Your task to perform on an android device: turn off picture-in-picture Image 0: 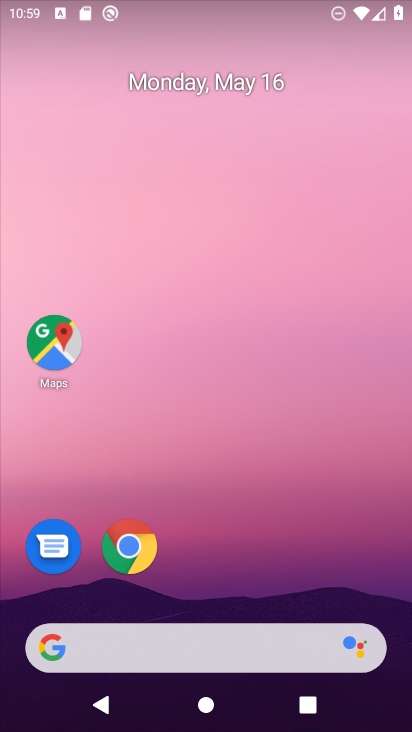
Step 0: click (124, 551)
Your task to perform on an android device: turn off picture-in-picture Image 1: 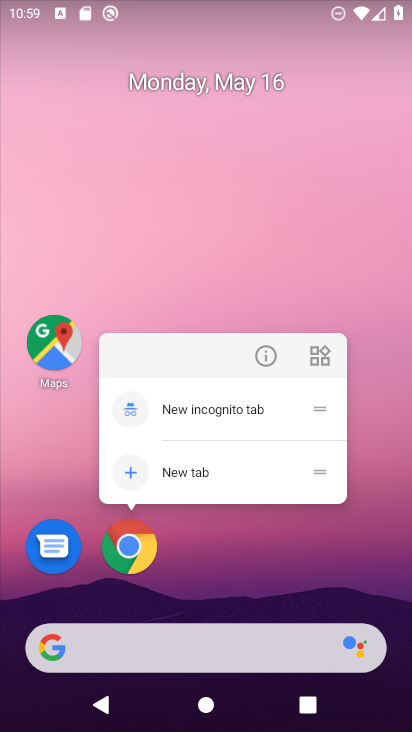
Step 1: click (265, 351)
Your task to perform on an android device: turn off picture-in-picture Image 2: 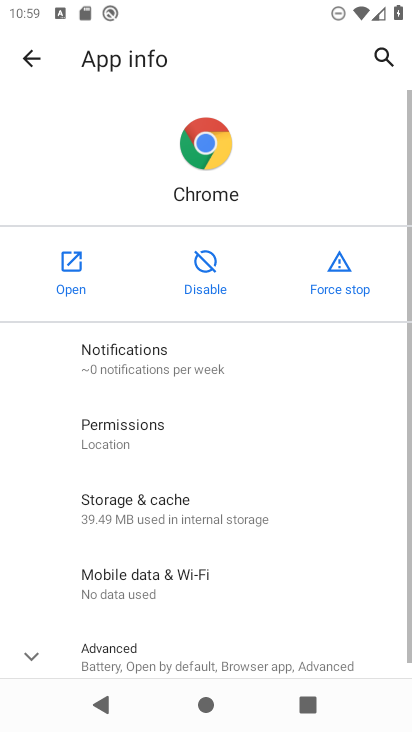
Step 2: drag from (177, 570) to (221, 210)
Your task to perform on an android device: turn off picture-in-picture Image 3: 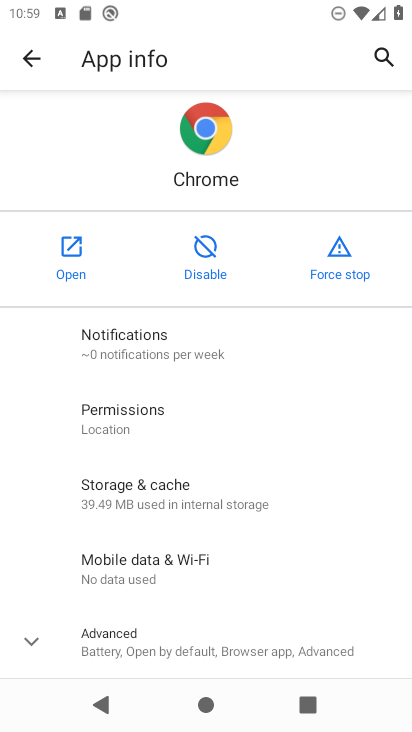
Step 3: click (165, 658)
Your task to perform on an android device: turn off picture-in-picture Image 4: 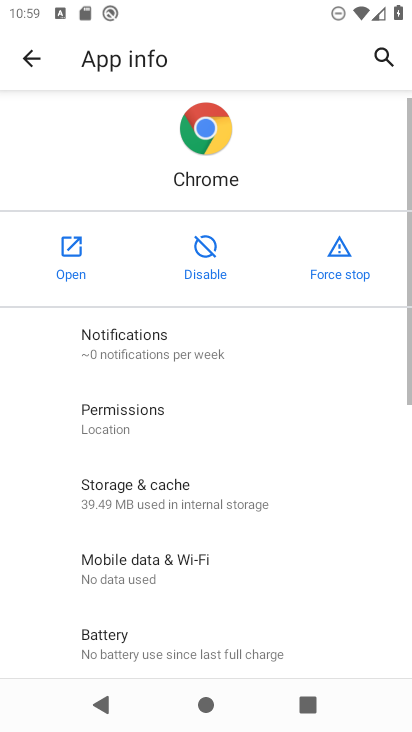
Step 4: drag from (165, 658) to (218, 351)
Your task to perform on an android device: turn off picture-in-picture Image 5: 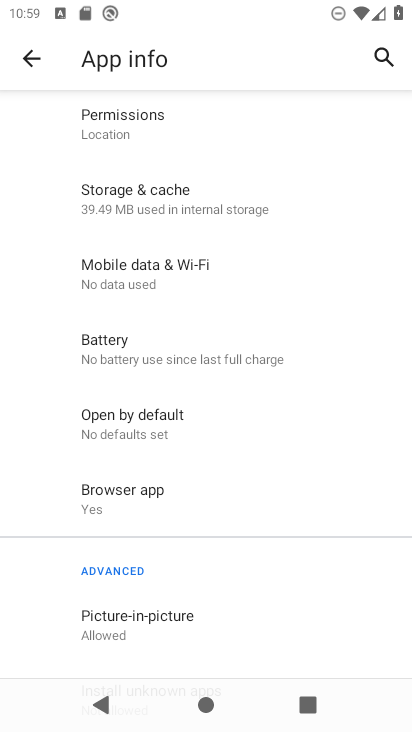
Step 5: click (184, 624)
Your task to perform on an android device: turn off picture-in-picture Image 6: 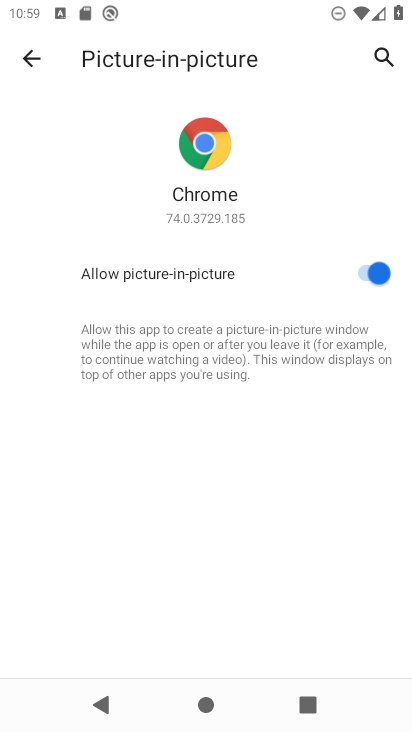
Step 6: click (372, 274)
Your task to perform on an android device: turn off picture-in-picture Image 7: 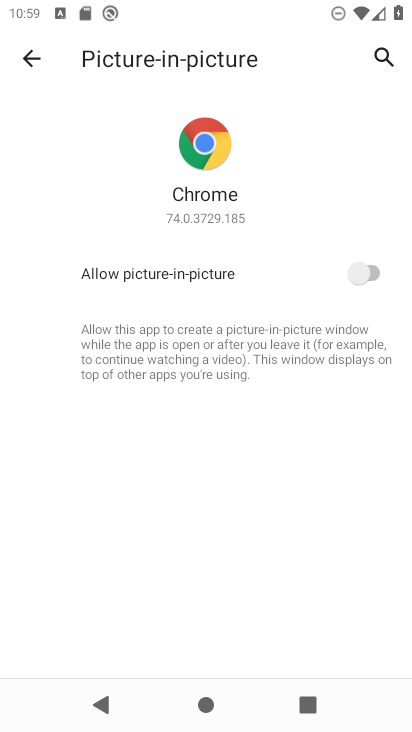
Step 7: task complete